Your task to perform on an android device: Show me recent news Image 0: 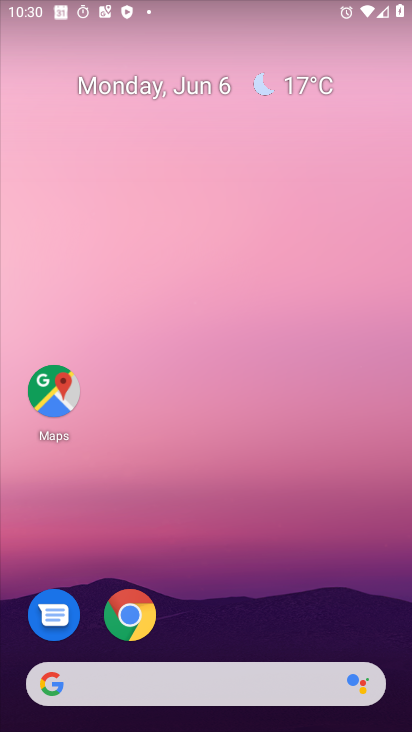
Step 0: click (131, 610)
Your task to perform on an android device: Show me recent news Image 1: 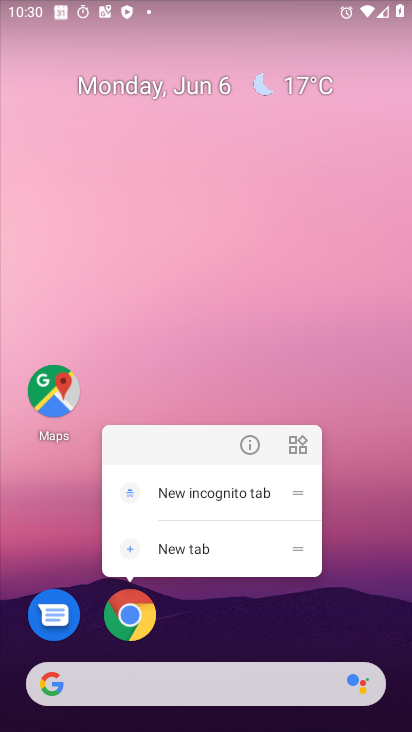
Step 1: click (172, 245)
Your task to perform on an android device: Show me recent news Image 2: 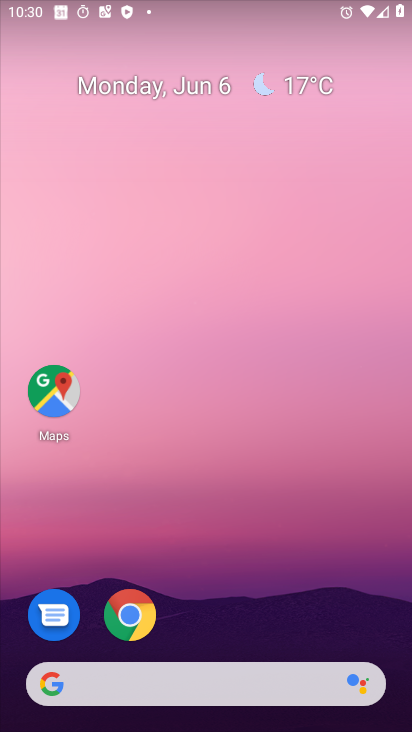
Step 2: task complete